Your task to perform on an android device: change your default location settings in chrome Image 0: 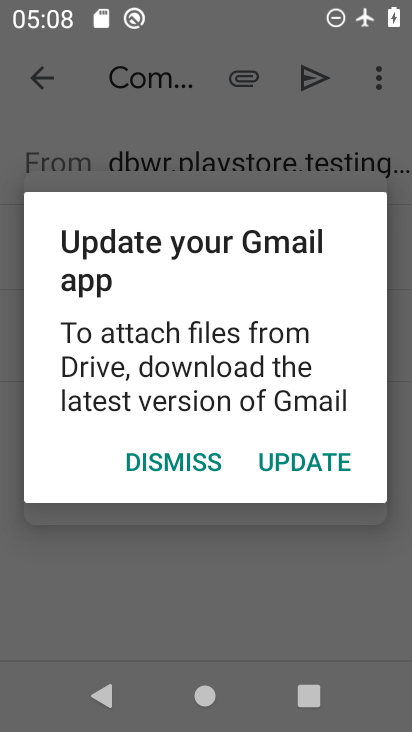
Step 0: press home button
Your task to perform on an android device: change your default location settings in chrome Image 1: 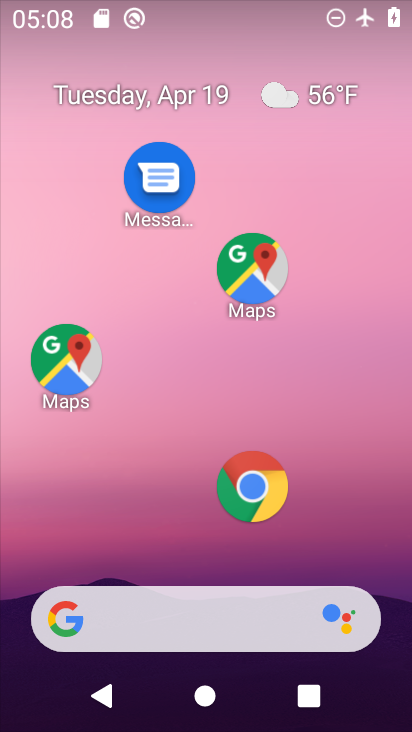
Step 1: click (255, 477)
Your task to perform on an android device: change your default location settings in chrome Image 2: 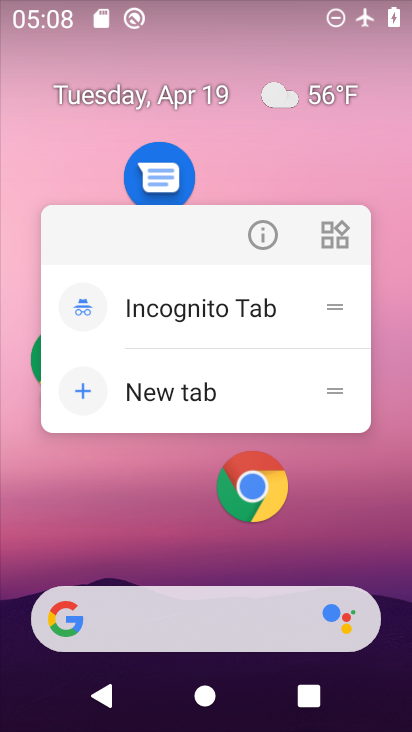
Step 2: click (277, 238)
Your task to perform on an android device: change your default location settings in chrome Image 3: 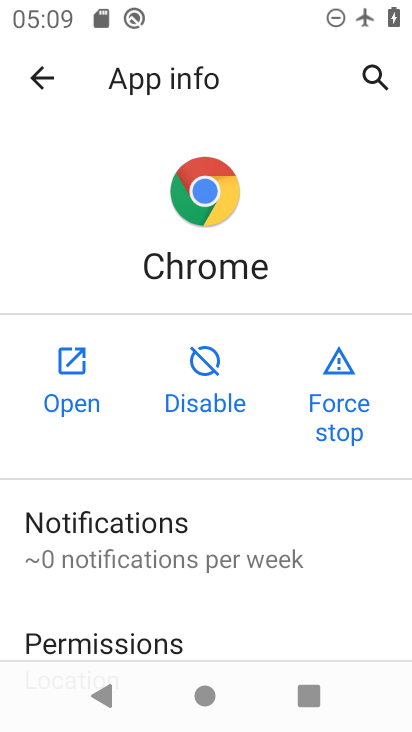
Step 3: click (66, 403)
Your task to perform on an android device: change your default location settings in chrome Image 4: 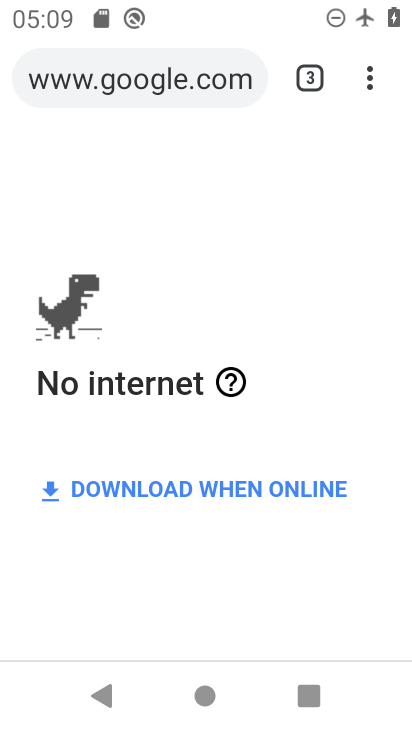
Step 4: click (376, 67)
Your task to perform on an android device: change your default location settings in chrome Image 5: 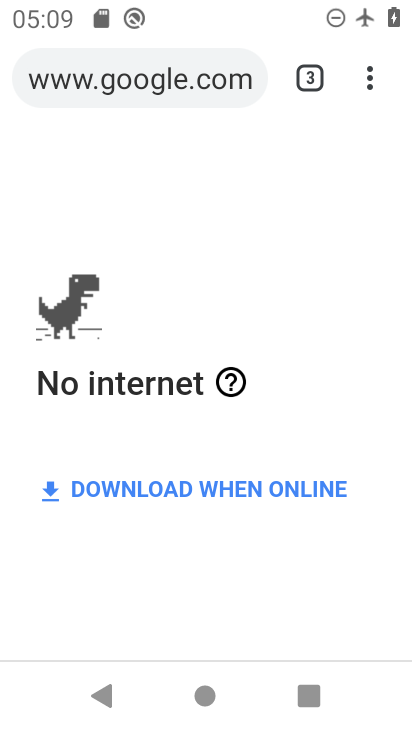
Step 5: click (367, 90)
Your task to perform on an android device: change your default location settings in chrome Image 6: 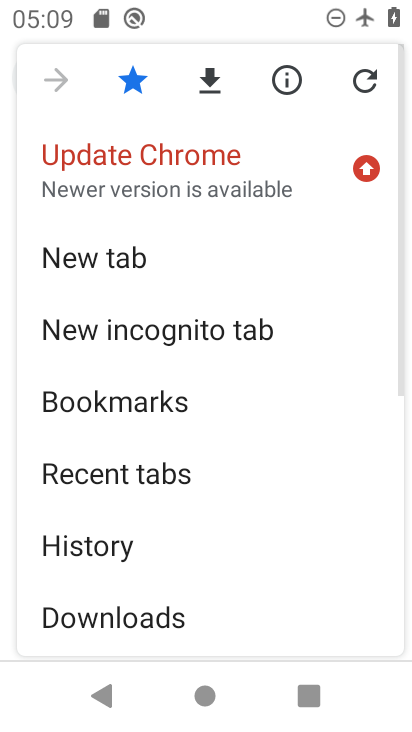
Step 6: drag from (223, 468) to (251, 95)
Your task to perform on an android device: change your default location settings in chrome Image 7: 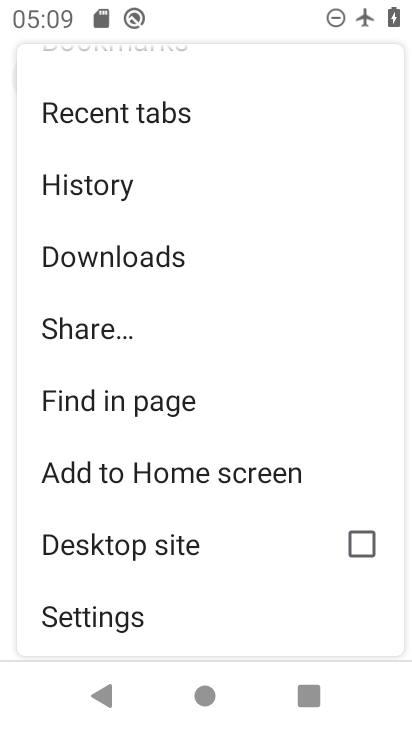
Step 7: click (139, 625)
Your task to perform on an android device: change your default location settings in chrome Image 8: 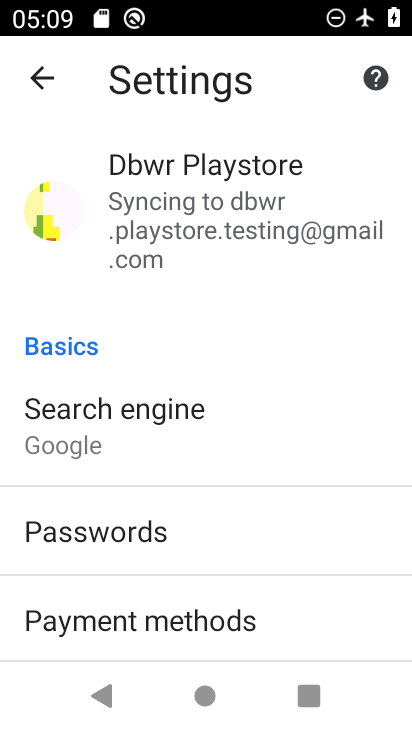
Step 8: drag from (235, 563) to (365, 287)
Your task to perform on an android device: change your default location settings in chrome Image 9: 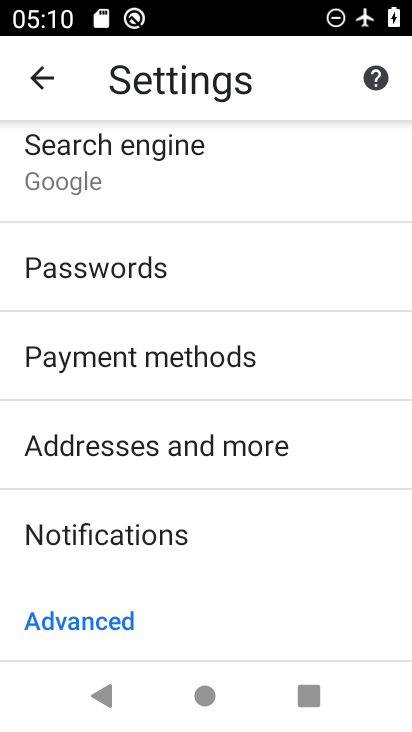
Step 9: drag from (174, 568) to (208, 323)
Your task to perform on an android device: change your default location settings in chrome Image 10: 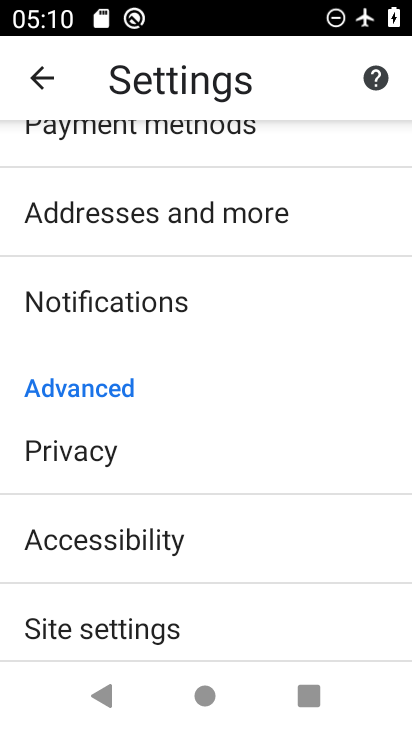
Step 10: click (151, 638)
Your task to perform on an android device: change your default location settings in chrome Image 11: 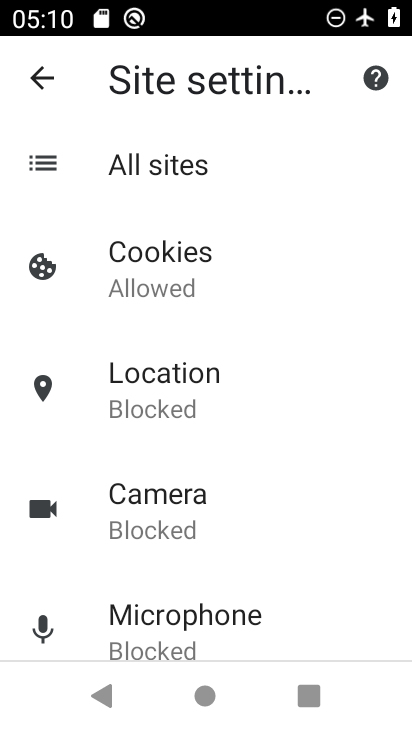
Step 11: click (235, 390)
Your task to perform on an android device: change your default location settings in chrome Image 12: 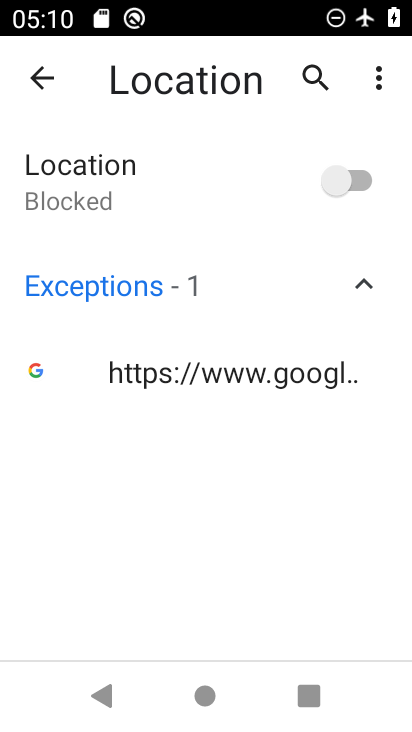
Step 12: click (353, 184)
Your task to perform on an android device: change your default location settings in chrome Image 13: 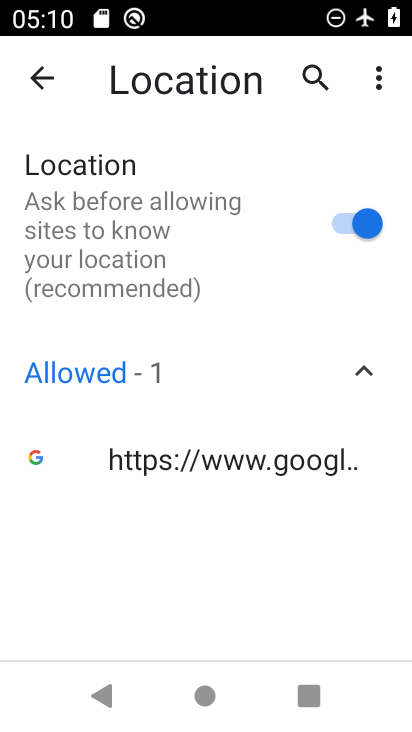
Step 13: task complete